Your task to perform on an android device: Open the phone app and click the voicemail tab. Image 0: 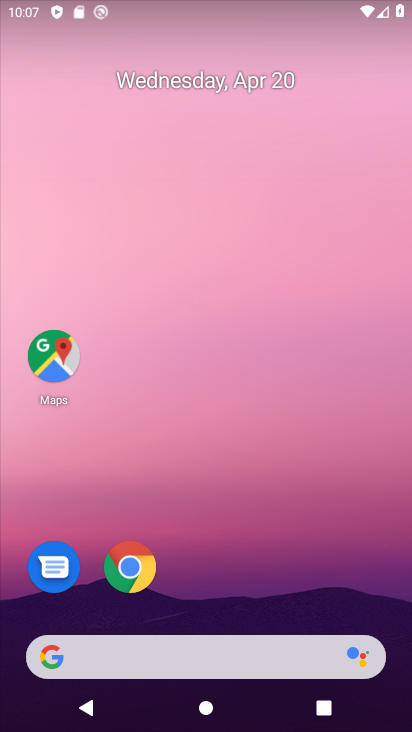
Step 0: drag from (243, 571) to (217, 33)
Your task to perform on an android device: Open the phone app and click the voicemail tab. Image 1: 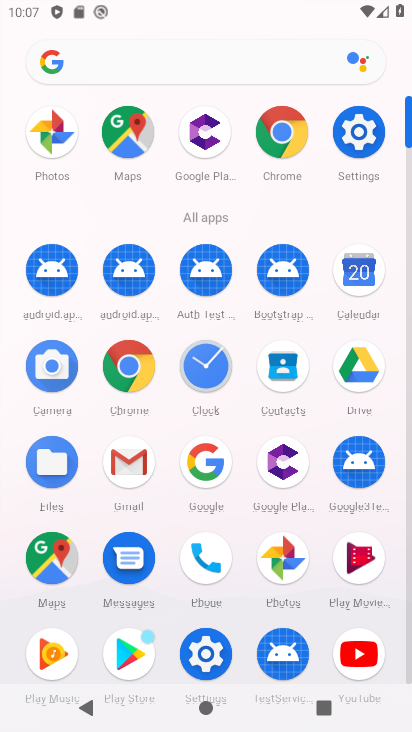
Step 1: click (207, 565)
Your task to perform on an android device: Open the phone app and click the voicemail tab. Image 2: 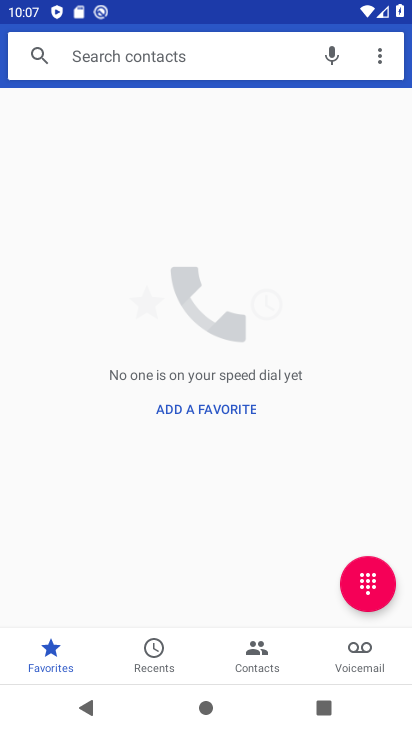
Step 2: click (359, 653)
Your task to perform on an android device: Open the phone app and click the voicemail tab. Image 3: 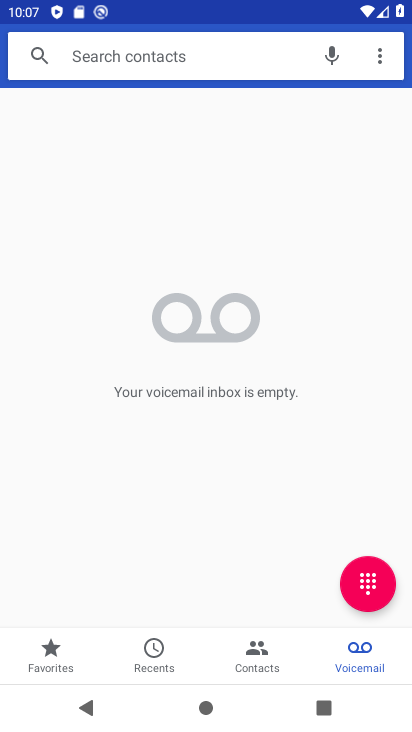
Step 3: task complete